Your task to perform on an android device: Go to eBay Image 0: 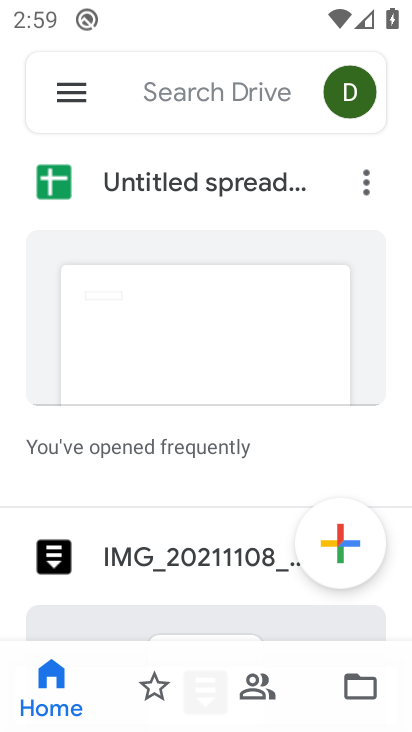
Step 0: press home button
Your task to perform on an android device: Go to eBay Image 1: 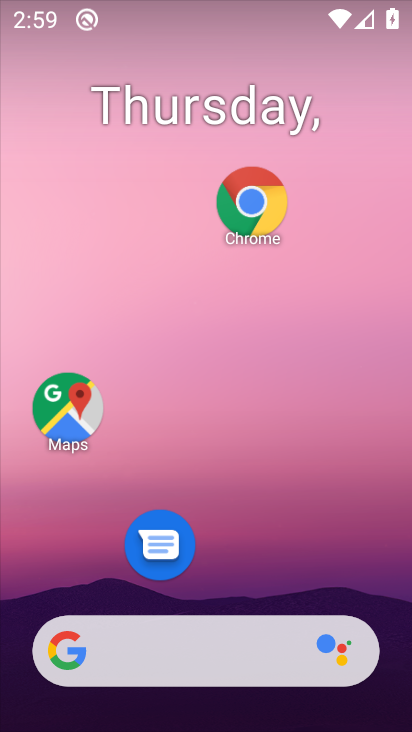
Step 1: click (258, 213)
Your task to perform on an android device: Go to eBay Image 2: 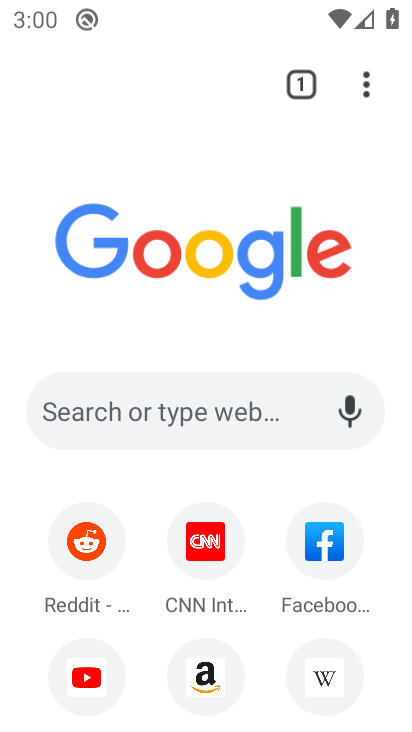
Step 2: click (155, 409)
Your task to perform on an android device: Go to eBay Image 3: 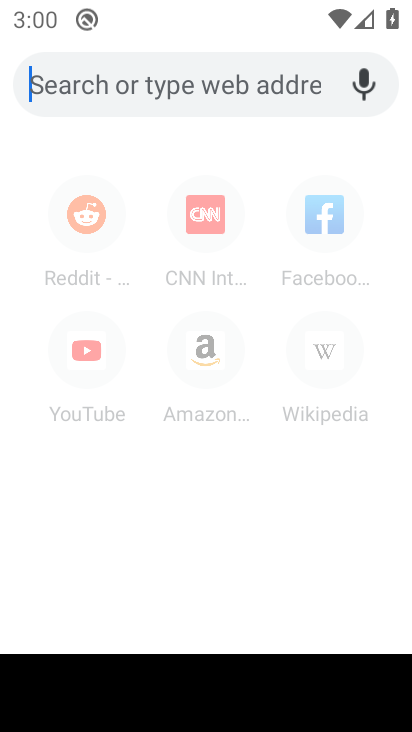
Step 3: type "ebay"
Your task to perform on an android device: Go to eBay Image 4: 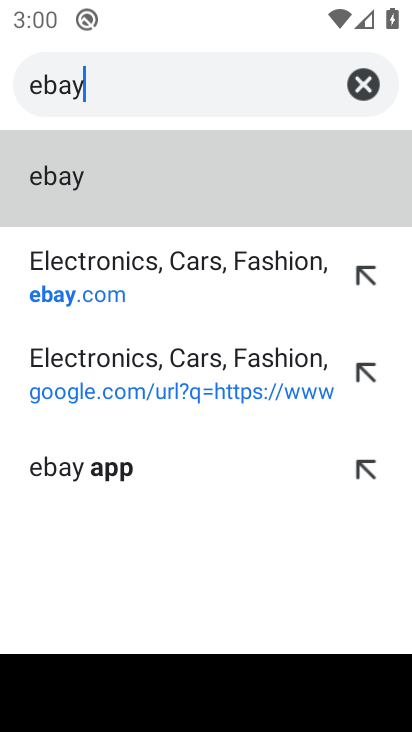
Step 4: click (98, 173)
Your task to perform on an android device: Go to eBay Image 5: 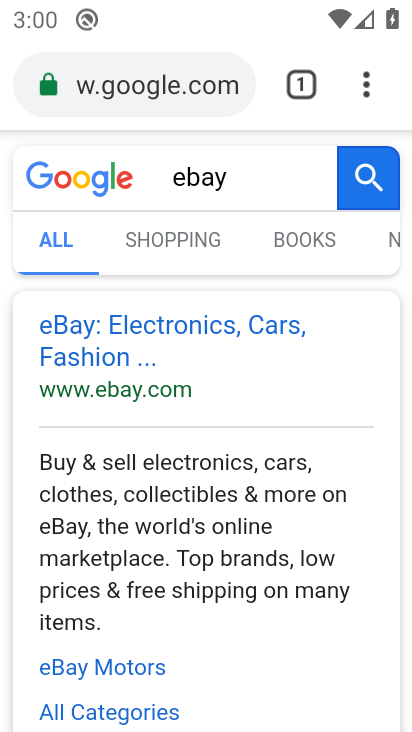
Step 5: click (168, 357)
Your task to perform on an android device: Go to eBay Image 6: 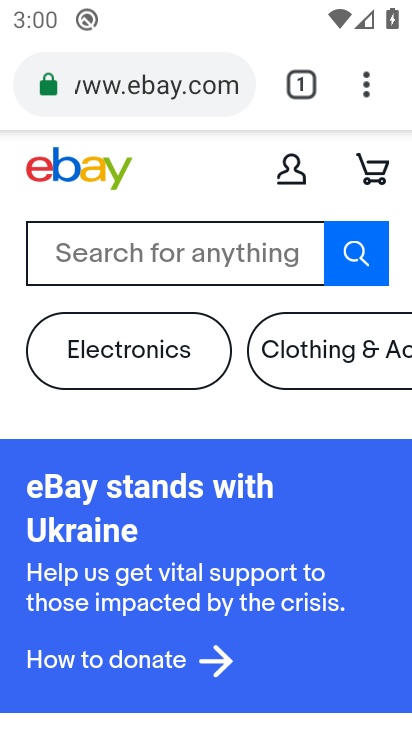
Step 6: task complete